Your task to perform on an android device: toggle location history Image 0: 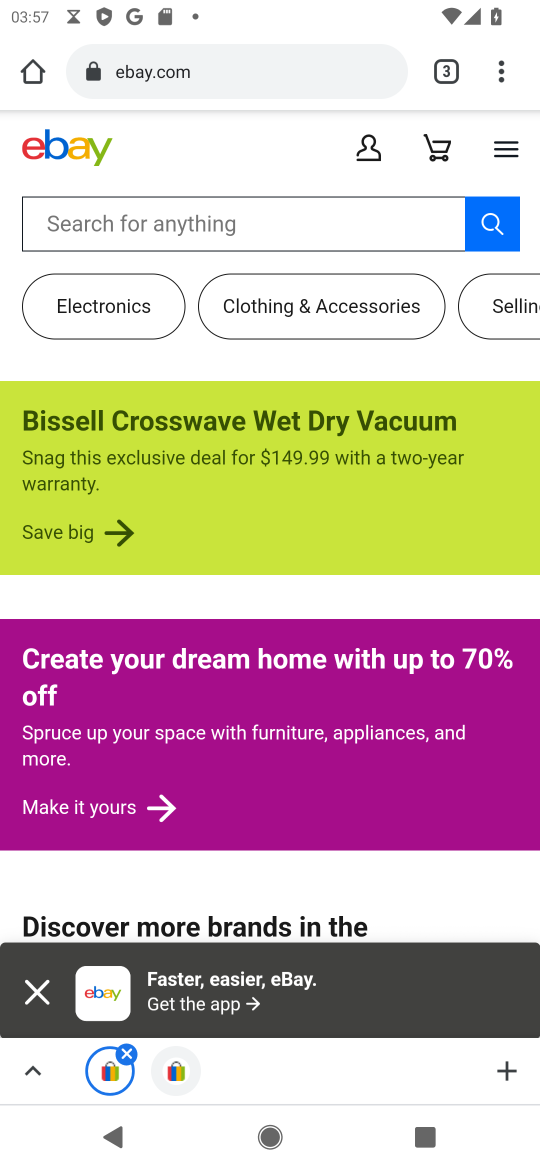
Step 0: press home button
Your task to perform on an android device: toggle location history Image 1: 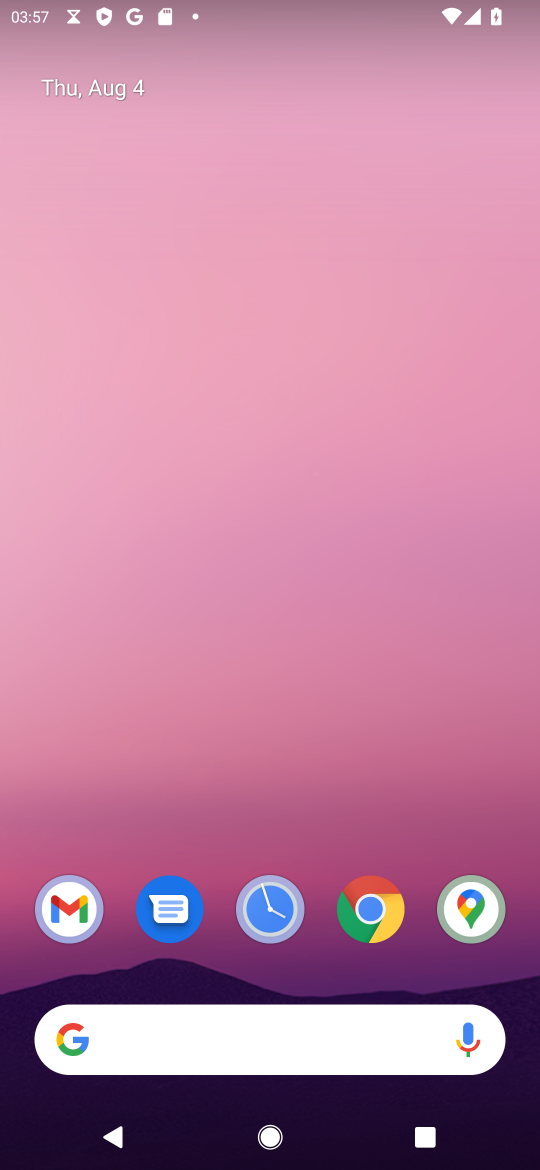
Step 1: drag from (301, 1005) to (446, 252)
Your task to perform on an android device: toggle location history Image 2: 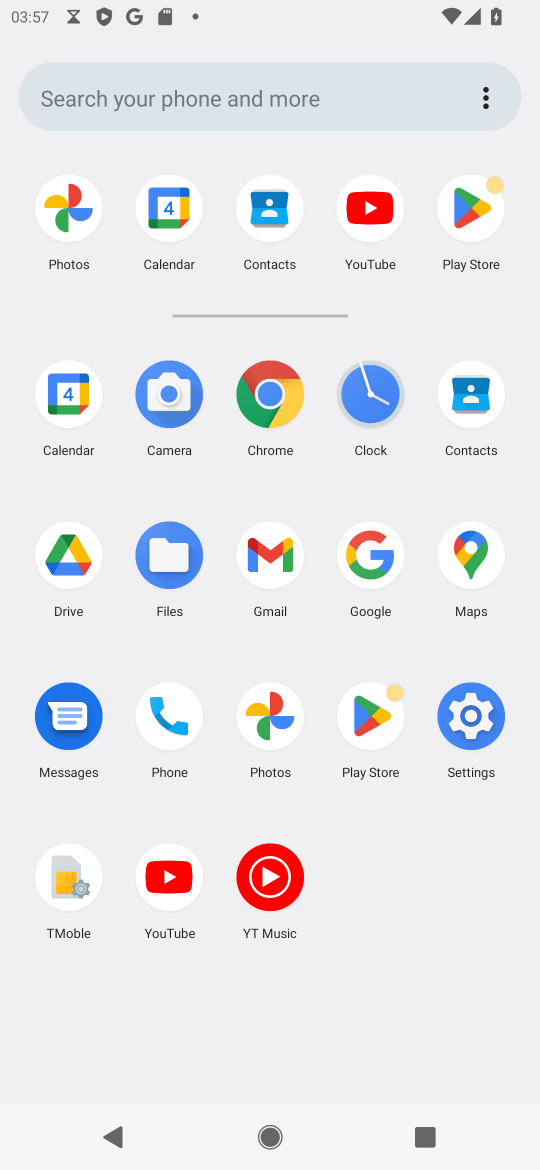
Step 2: click (482, 721)
Your task to perform on an android device: toggle location history Image 3: 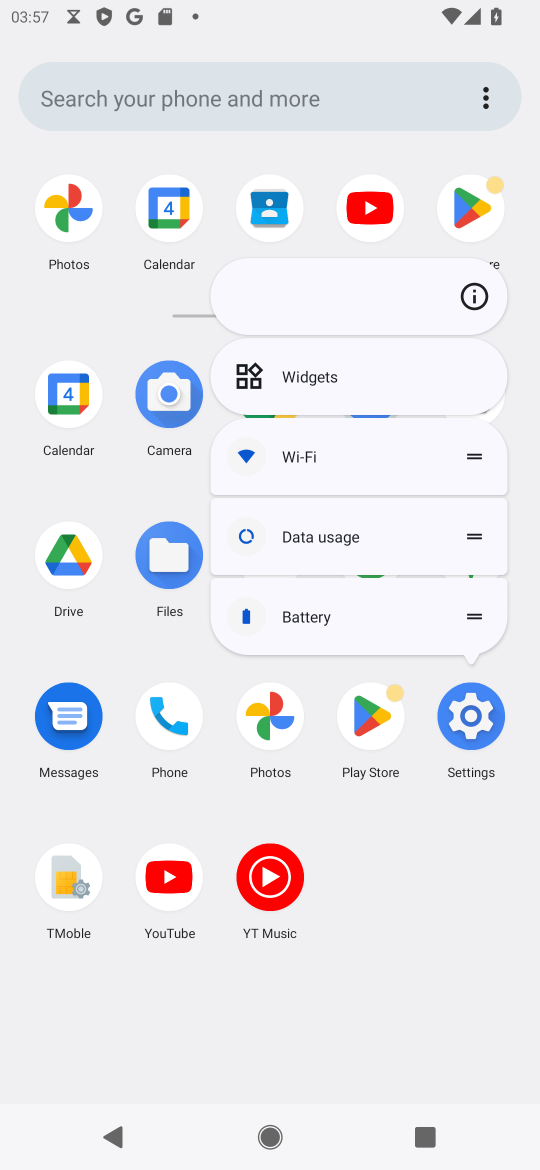
Step 3: click (461, 733)
Your task to perform on an android device: toggle location history Image 4: 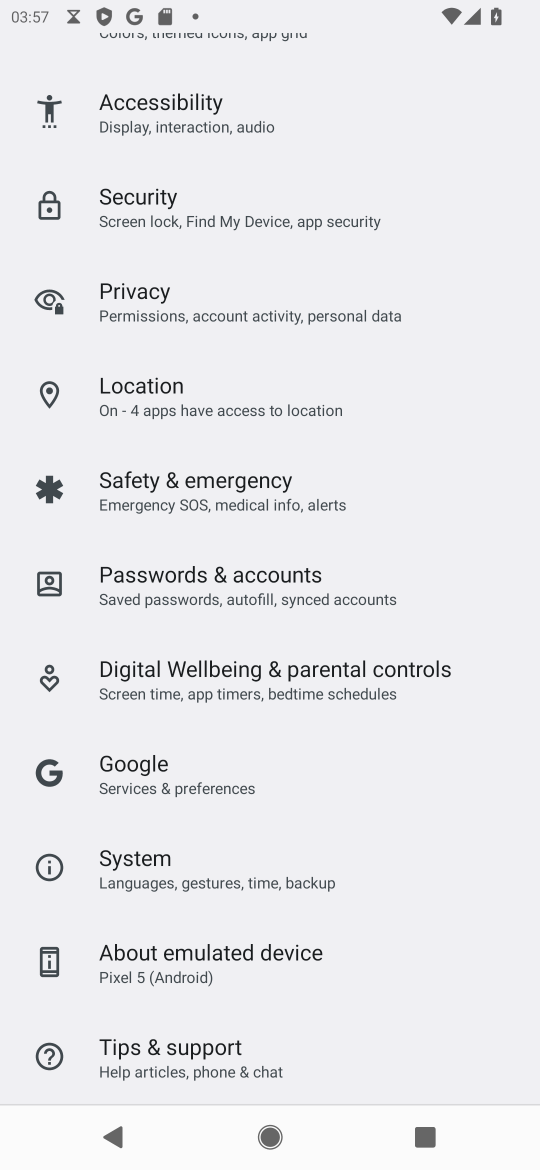
Step 4: drag from (381, 836) to (483, 657)
Your task to perform on an android device: toggle location history Image 5: 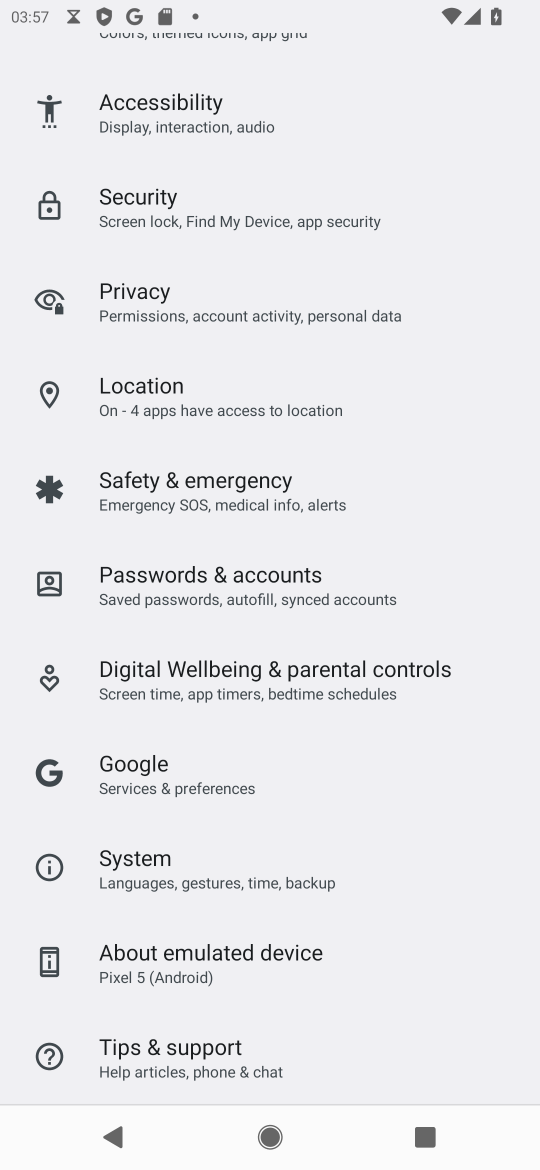
Step 5: click (193, 399)
Your task to perform on an android device: toggle location history Image 6: 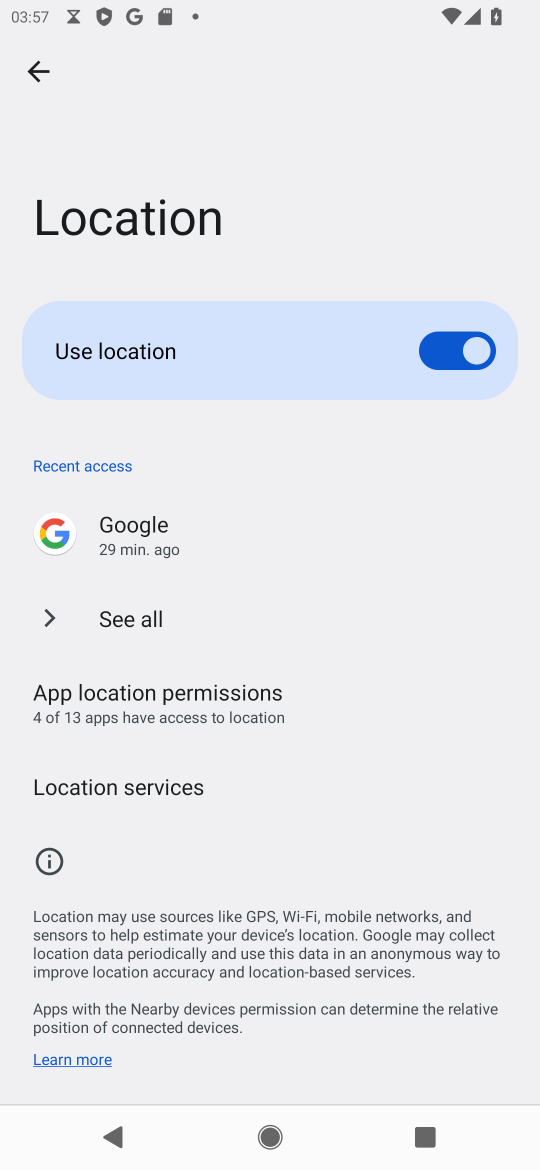
Step 6: click (99, 794)
Your task to perform on an android device: toggle location history Image 7: 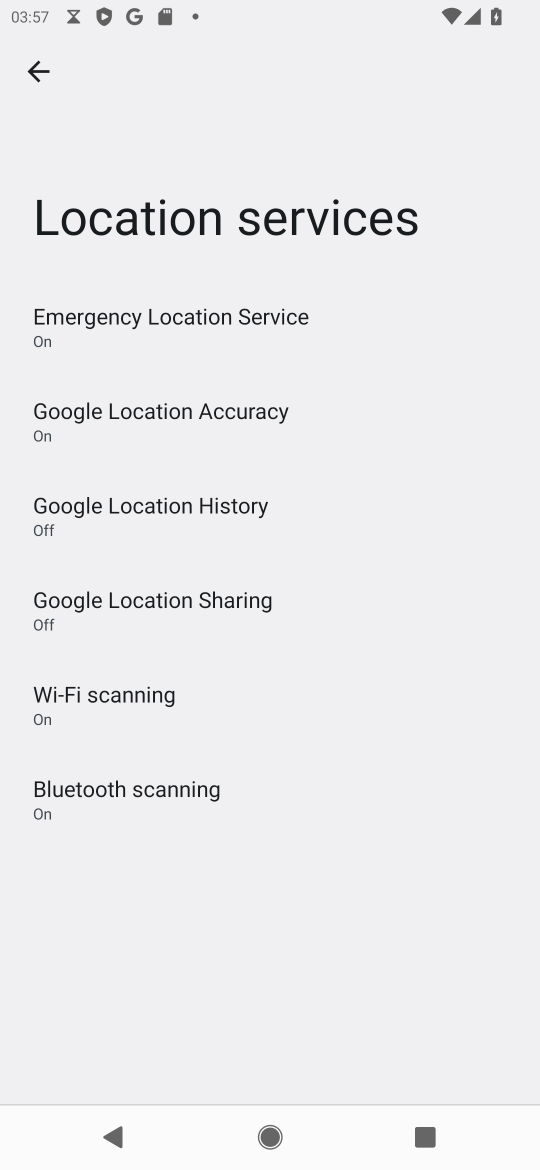
Step 7: click (212, 507)
Your task to perform on an android device: toggle location history Image 8: 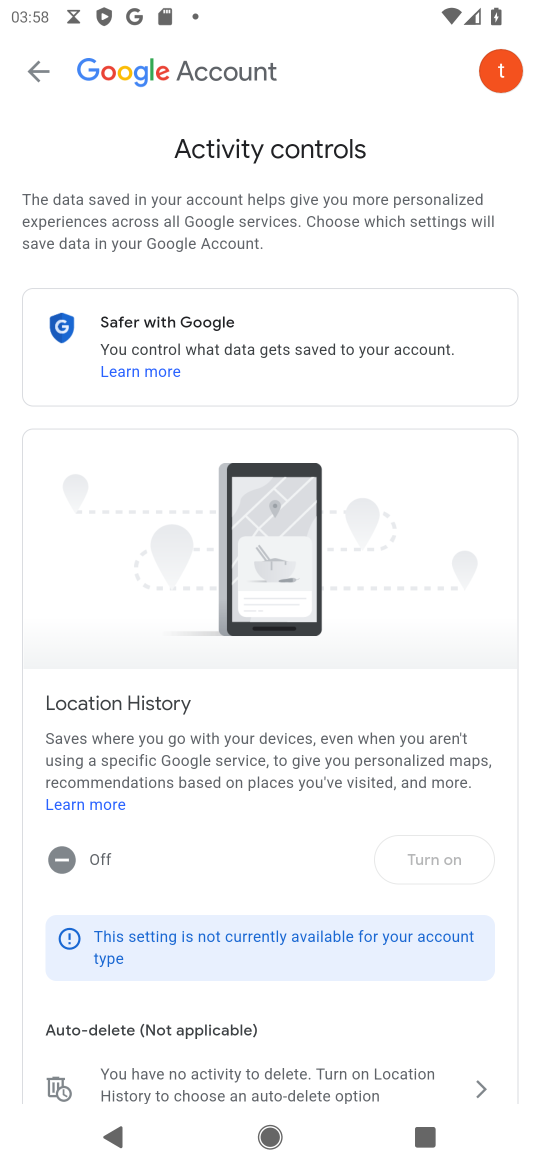
Step 8: task complete